Your task to perform on an android device: allow cookies in the chrome app Image 0: 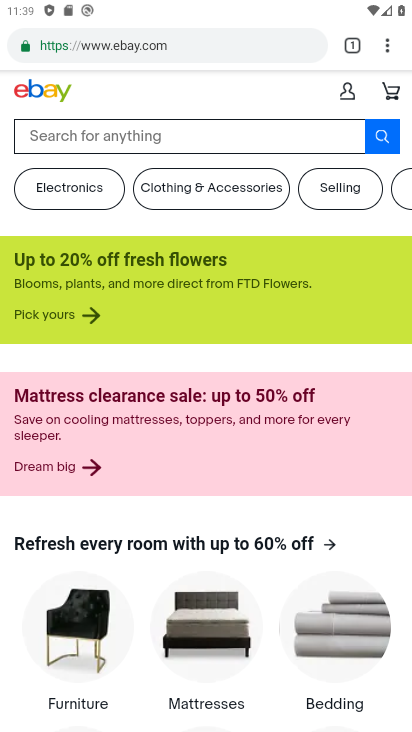
Step 0: press home button
Your task to perform on an android device: allow cookies in the chrome app Image 1: 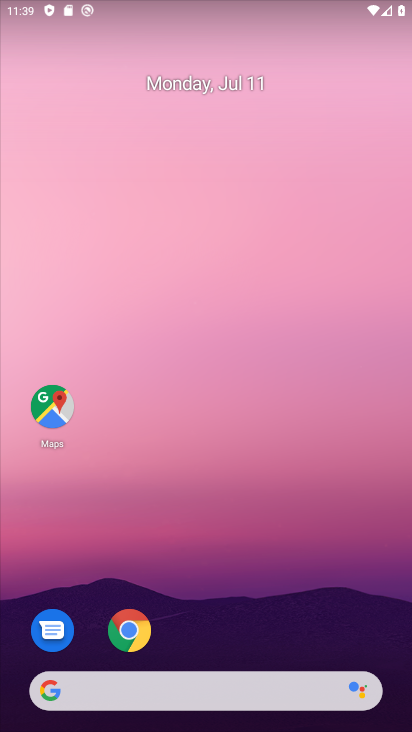
Step 1: click (129, 632)
Your task to perform on an android device: allow cookies in the chrome app Image 2: 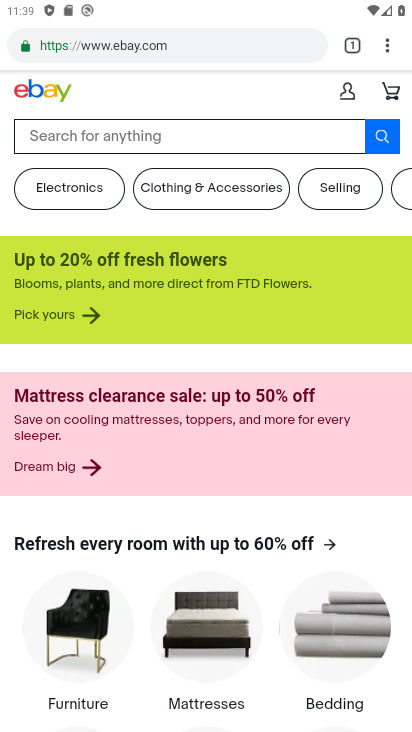
Step 2: click (387, 48)
Your task to perform on an android device: allow cookies in the chrome app Image 3: 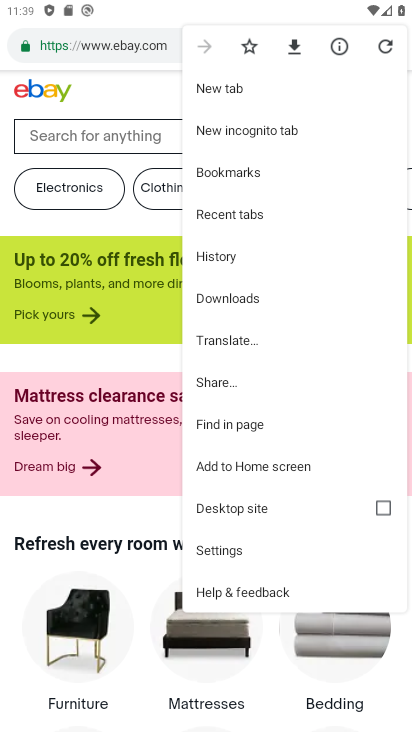
Step 3: click (228, 549)
Your task to perform on an android device: allow cookies in the chrome app Image 4: 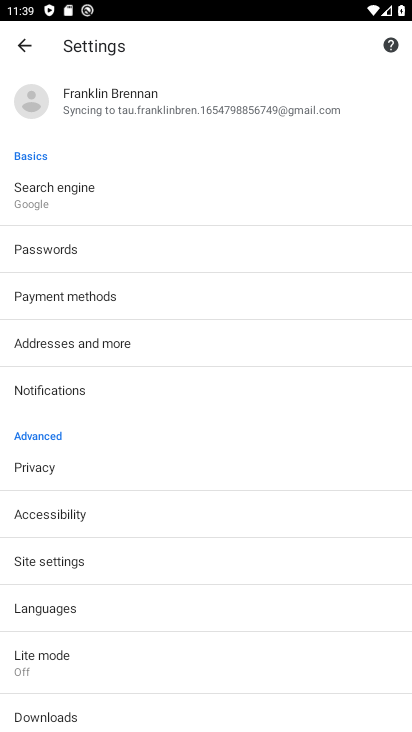
Step 4: click (77, 559)
Your task to perform on an android device: allow cookies in the chrome app Image 5: 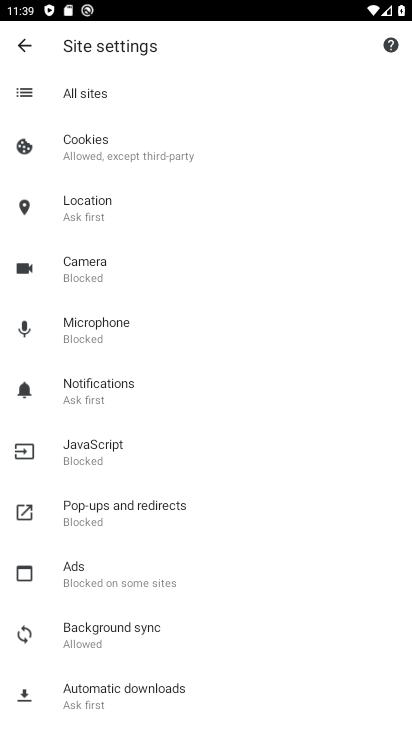
Step 5: click (161, 139)
Your task to perform on an android device: allow cookies in the chrome app Image 6: 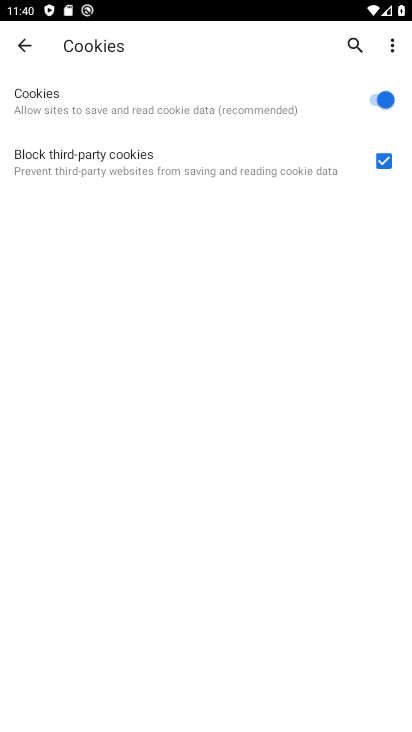
Step 6: task complete